Your task to perform on an android device: turn on javascript in the chrome app Image 0: 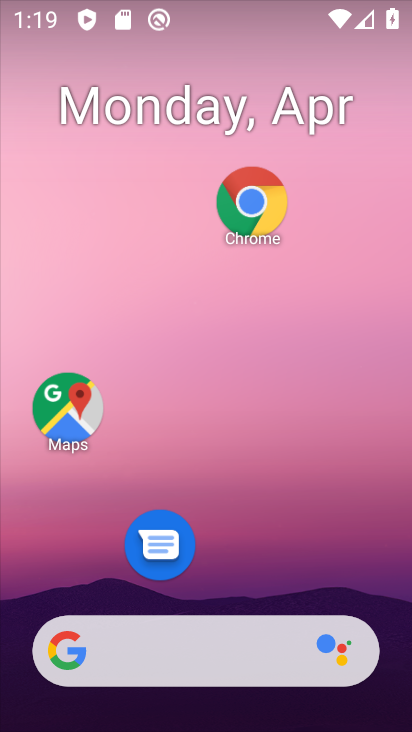
Step 0: click (252, 196)
Your task to perform on an android device: turn on javascript in the chrome app Image 1: 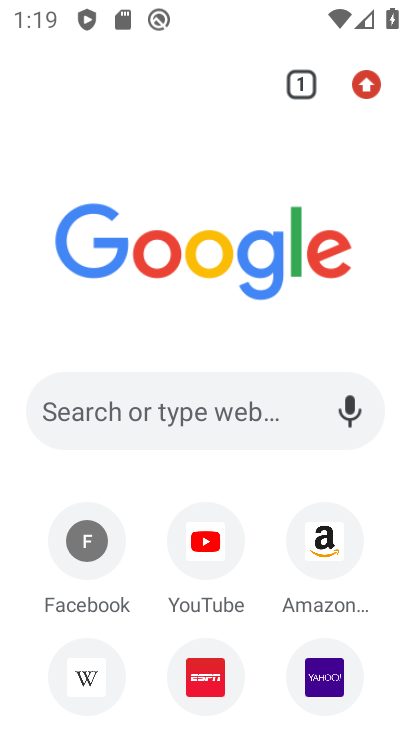
Step 1: click (373, 86)
Your task to perform on an android device: turn on javascript in the chrome app Image 2: 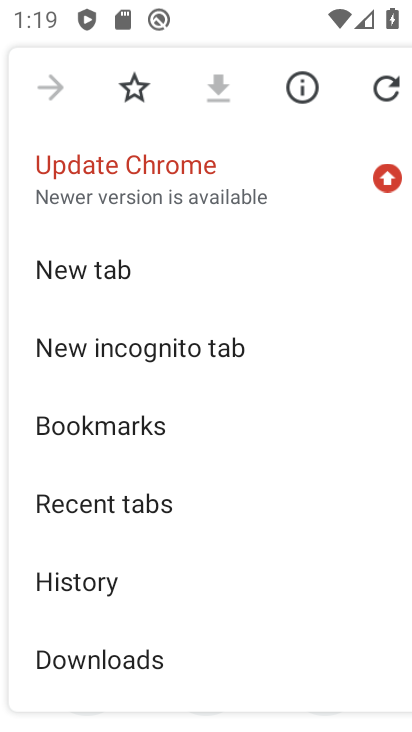
Step 2: drag from (146, 613) to (202, 181)
Your task to perform on an android device: turn on javascript in the chrome app Image 3: 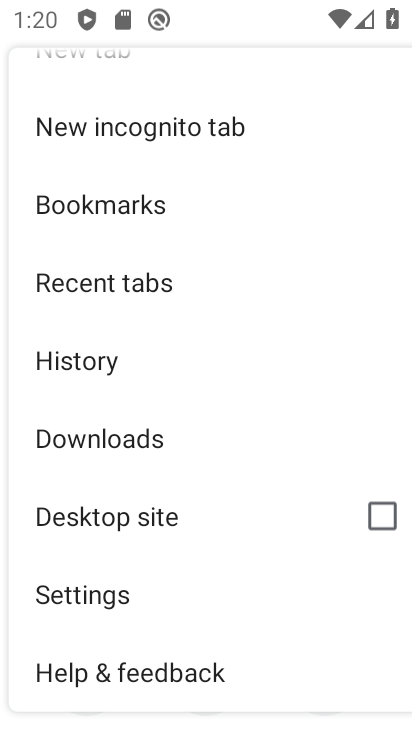
Step 3: drag from (153, 656) to (144, 378)
Your task to perform on an android device: turn on javascript in the chrome app Image 4: 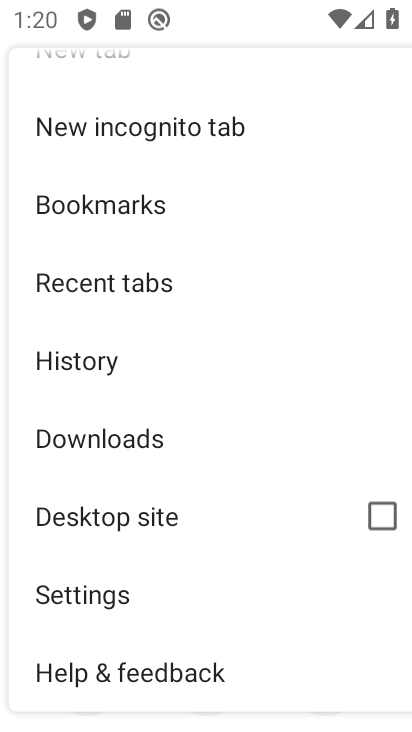
Step 4: click (103, 599)
Your task to perform on an android device: turn on javascript in the chrome app Image 5: 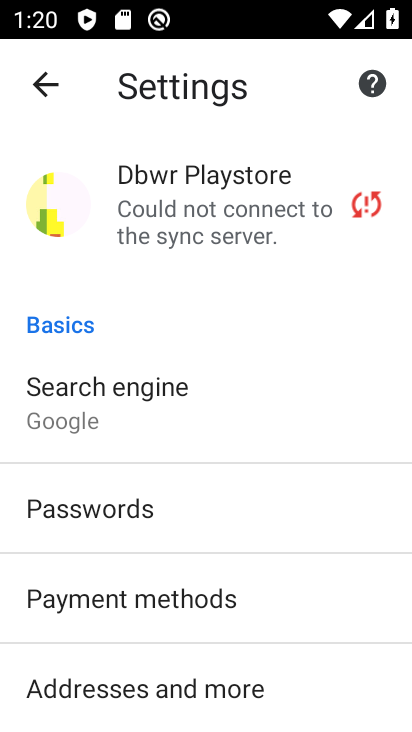
Step 5: drag from (135, 630) to (232, 310)
Your task to perform on an android device: turn on javascript in the chrome app Image 6: 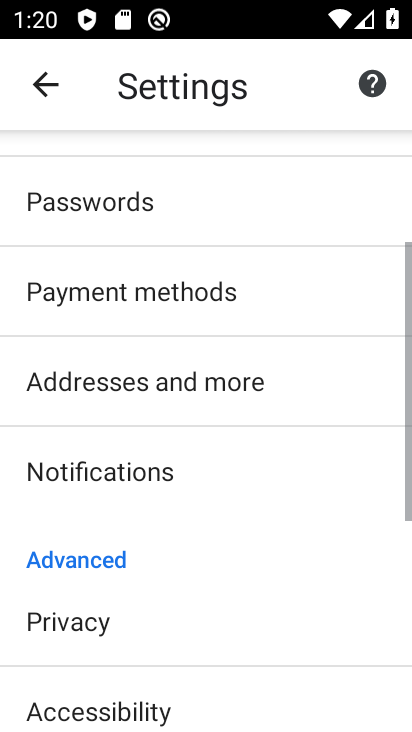
Step 6: drag from (136, 665) to (150, 433)
Your task to perform on an android device: turn on javascript in the chrome app Image 7: 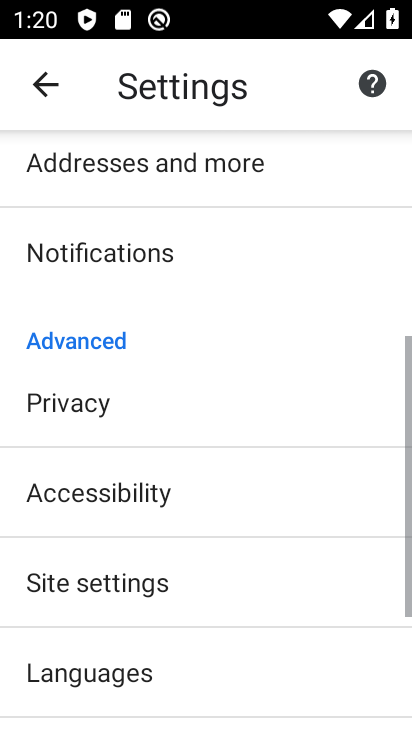
Step 7: drag from (170, 617) to (214, 153)
Your task to perform on an android device: turn on javascript in the chrome app Image 8: 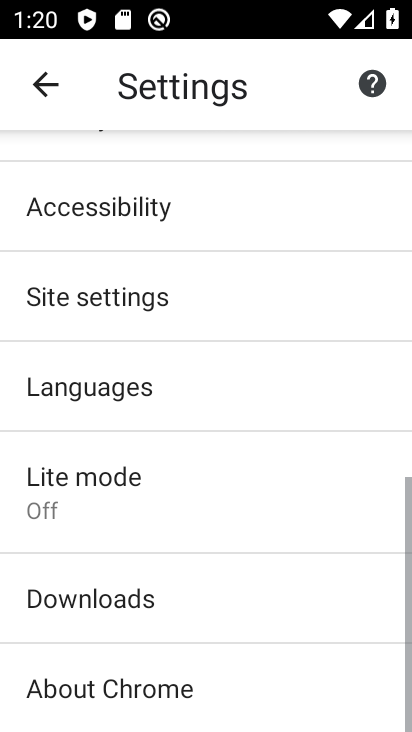
Step 8: drag from (188, 635) to (228, 225)
Your task to perform on an android device: turn on javascript in the chrome app Image 9: 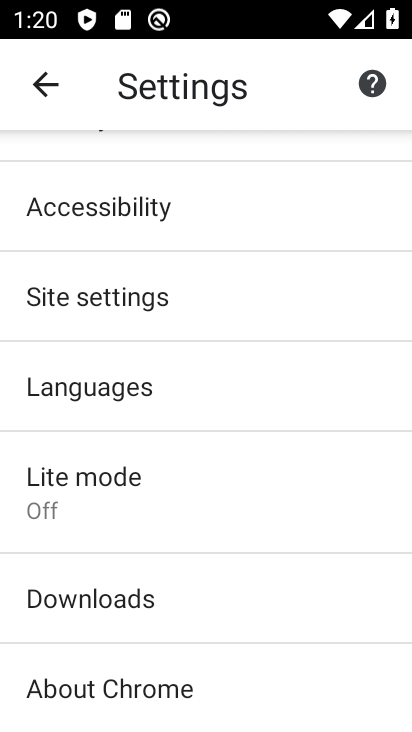
Step 9: click (122, 276)
Your task to perform on an android device: turn on javascript in the chrome app Image 10: 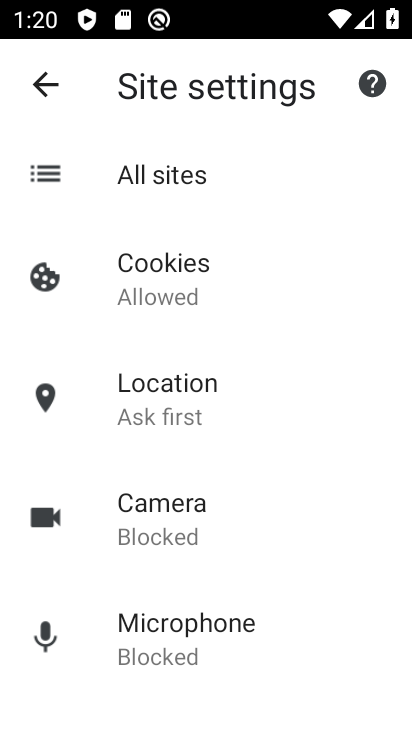
Step 10: drag from (138, 562) to (193, 135)
Your task to perform on an android device: turn on javascript in the chrome app Image 11: 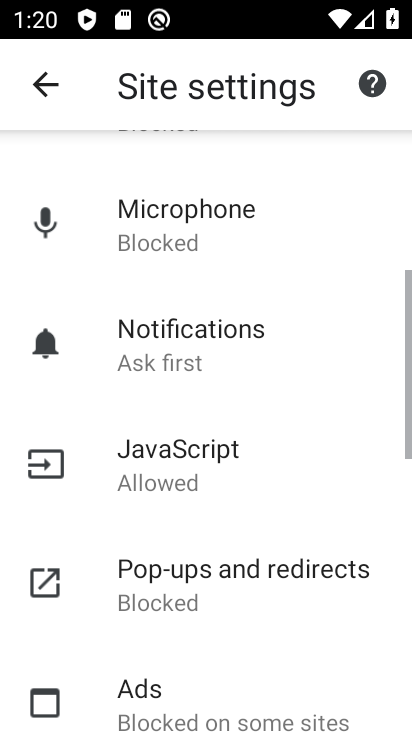
Step 11: drag from (118, 586) to (188, 239)
Your task to perform on an android device: turn on javascript in the chrome app Image 12: 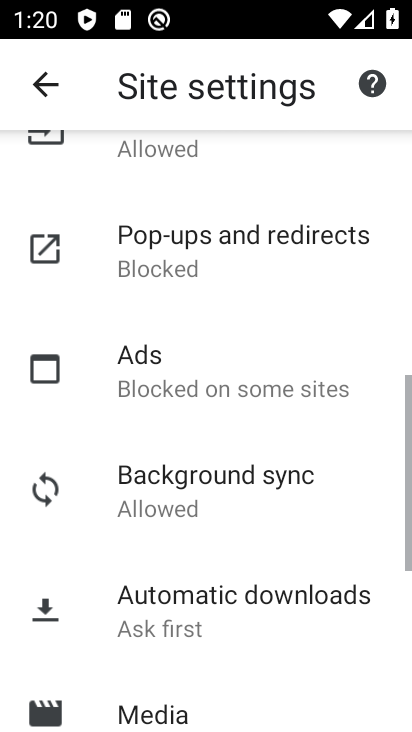
Step 12: drag from (53, 688) to (77, 572)
Your task to perform on an android device: turn on javascript in the chrome app Image 13: 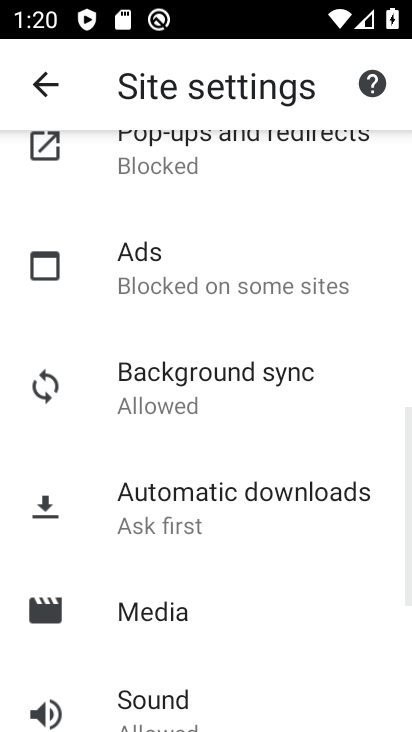
Step 13: drag from (221, 647) to (257, 217)
Your task to perform on an android device: turn on javascript in the chrome app Image 14: 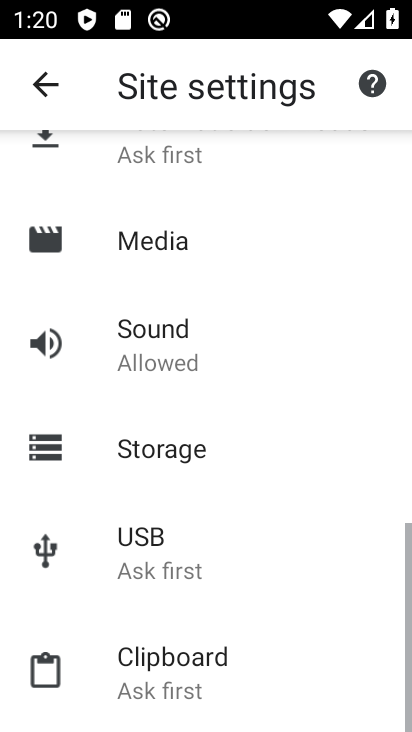
Step 14: drag from (215, 197) to (187, 543)
Your task to perform on an android device: turn on javascript in the chrome app Image 15: 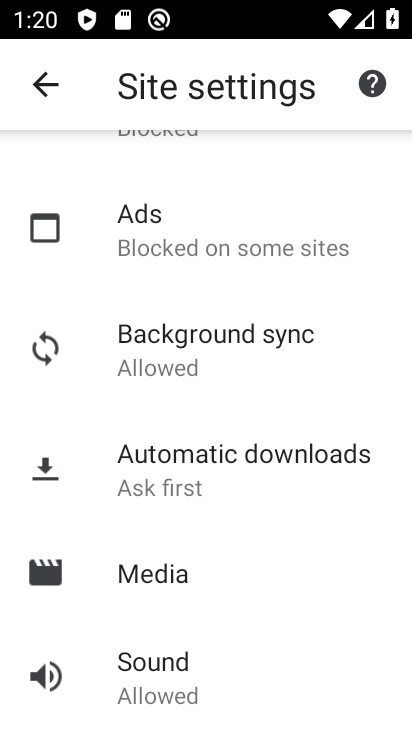
Step 15: drag from (200, 291) to (176, 608)
Your task to perform on an android device: turn on javascript in the chrome app Image 16: 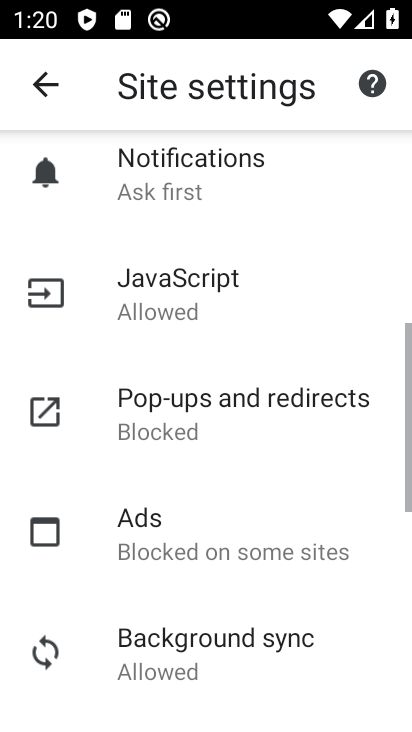
Step 16: drag from (206, 191) to (112, 688)
Your task to perform on an android device: turn on javascript in the chrome app Image 17: 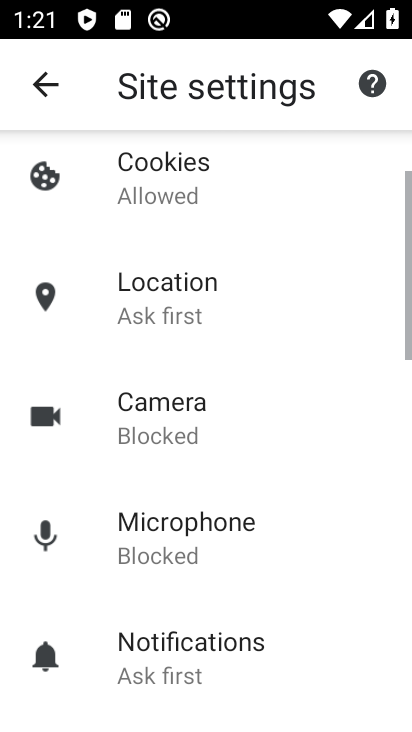
Step 17: click (182, 316)
Your task to perform on an android device: turn on javascript in the chrome app Image 18: 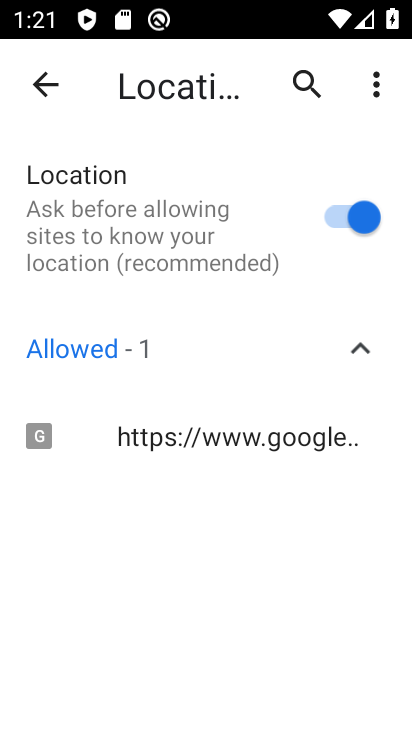
Step 18: task complete